Your task to perform on an android device: Open the calendar app, open the side menu, and click the "Day" option Image 0: 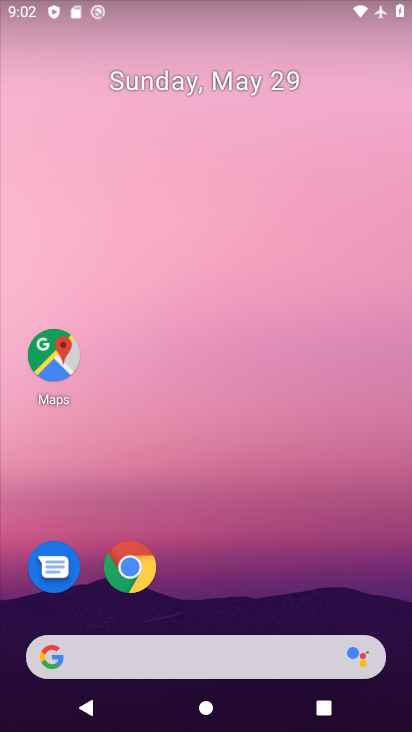
Step 0: drag from (391, 652) to (270, 16)
Your task to perform on an android device: Open the calendar app, open the side menu, and click the "Day" option Image 1: 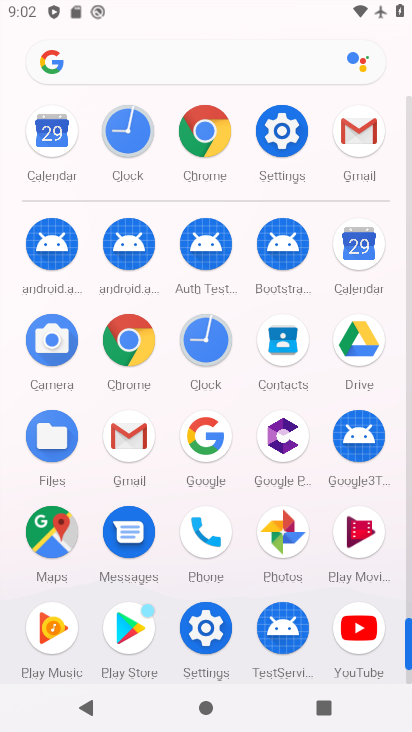
Step 1: click (408, 605)
Your task to perform on an android device: Open the calendar app, open the side menu, and click the "Day" option Image 2: 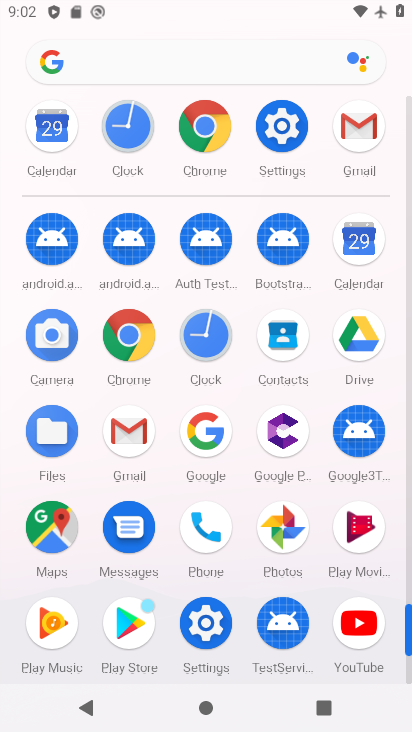
Step 2: click (358, 241)
Your task to perform on an android device: Open the calendar app, open the side menu, and click the "Day" option Image 3: 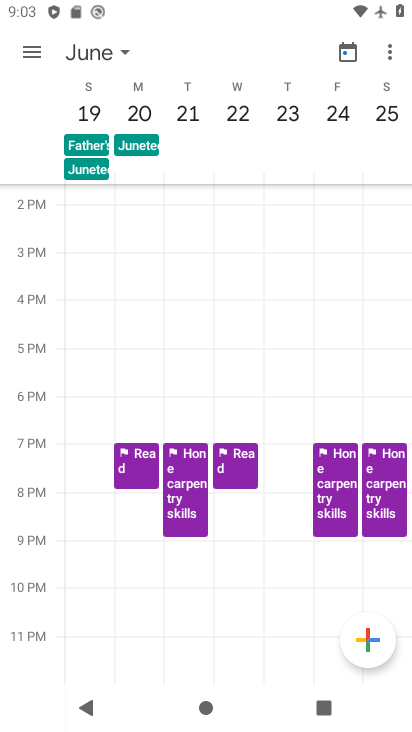
Step 3: click (36, 52)
Your task to perform on an android device: Open the calendar app, open the side menu, and click the "Day" option Image 4: 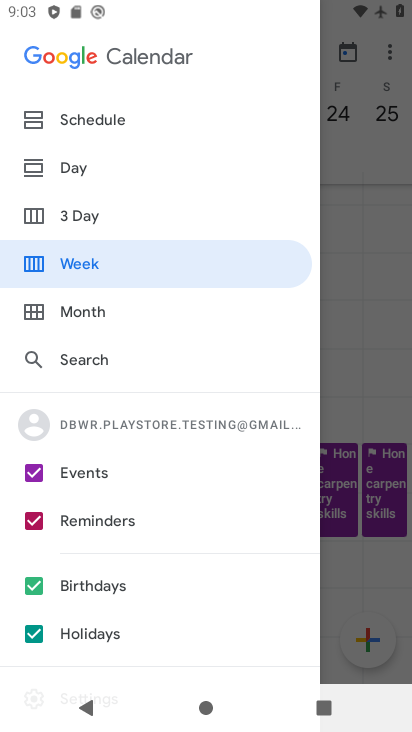
Step 4: click (77, 169)
Your task to perform on an android device: Open the calendar app, open the side menu, and click the "Day" option Image 5: 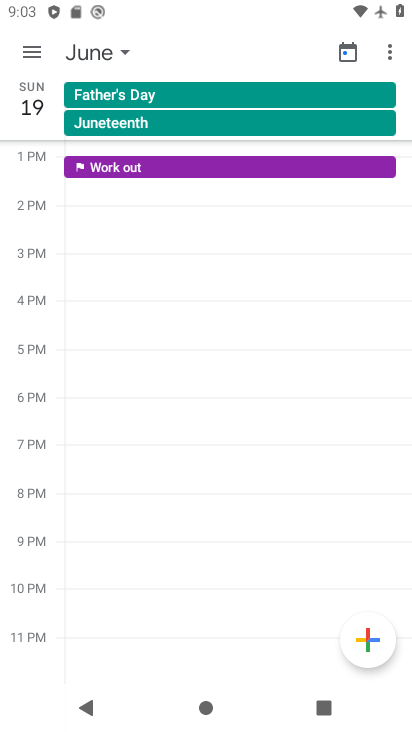
Step 5: drag from (273, 366) to (256, 626)
Your task to perform on an android device: Open the calendar app, open the side menu, and click the "Day" option Image 6: 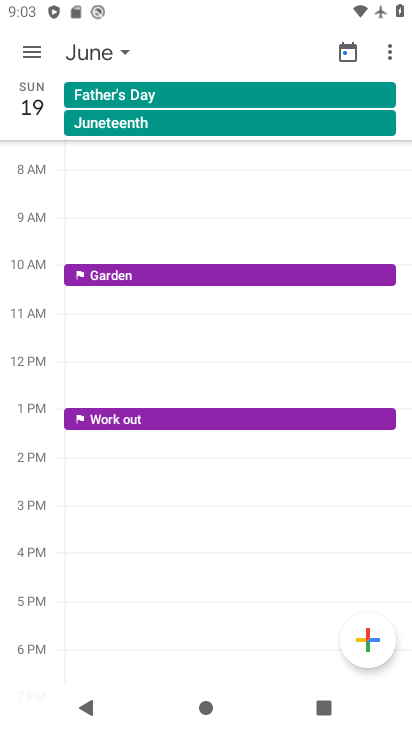
Step 6: click (121, 49)
Your task to perform on an android device: Open the calendar app, open the side menu, and click the "Day" option Image 7: 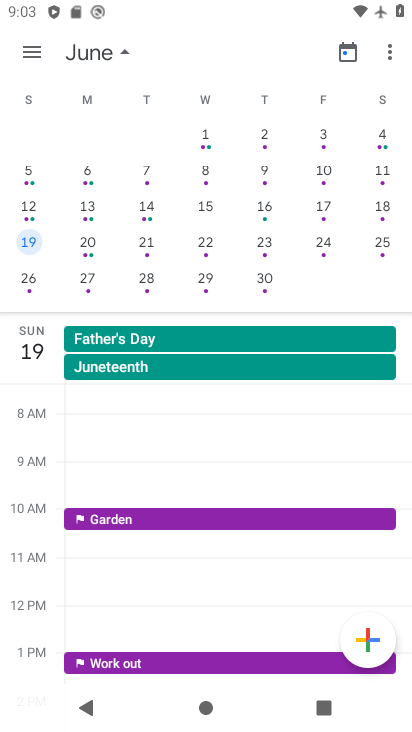
Step 7: drag from (40, 256) to (394, 253)
Your task to perform on an android device: Open the calendar app, open the side menu, and click the "Day" option Image 8: 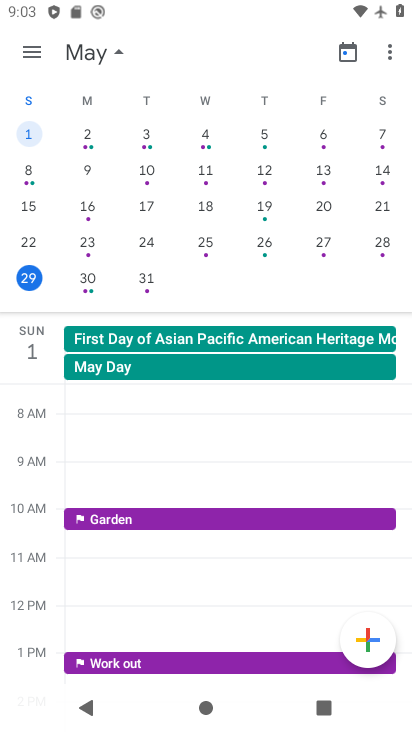
Step 8: click (26, 279)
Your task to perform on an android device: Open the calendar app, open the side menu, and click the "Day" option Image 9: 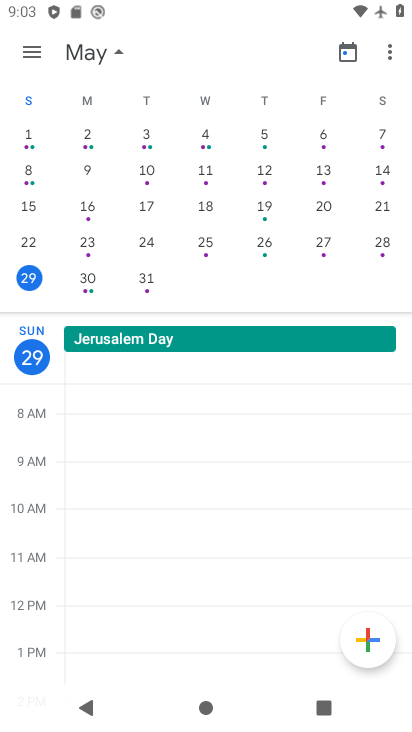
Step 9: task complete